Your task to perform on an android device: turn off picture-in-picture Image 0: 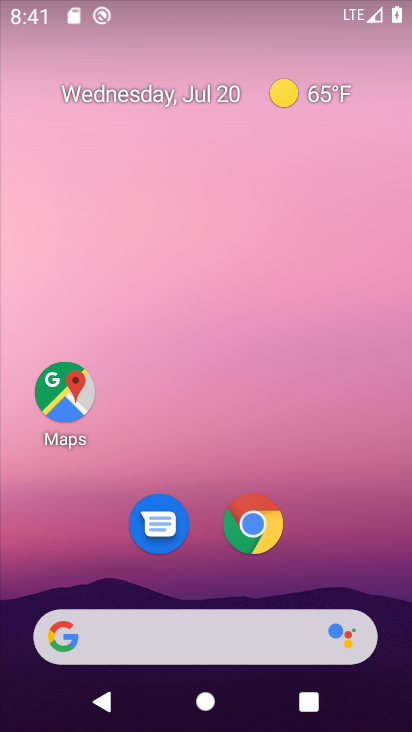
Step 0: click (238, 507)
Your task to perform on an android device: turn off picture-in-picture Image 1: 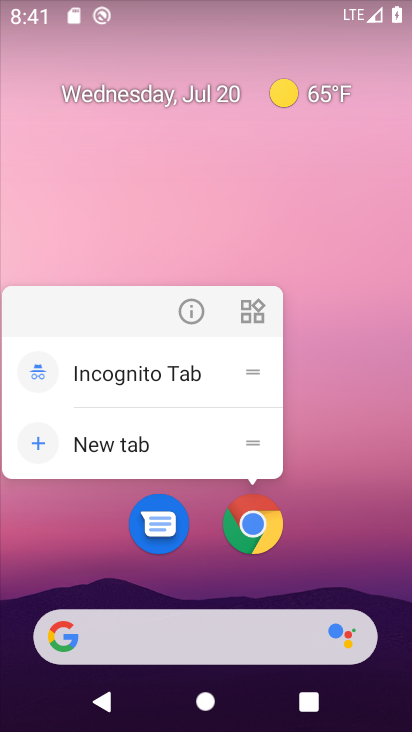
Step 1: click (196, 308)
Your task to perform on an android device: turn off picture-in-picture Image 2: 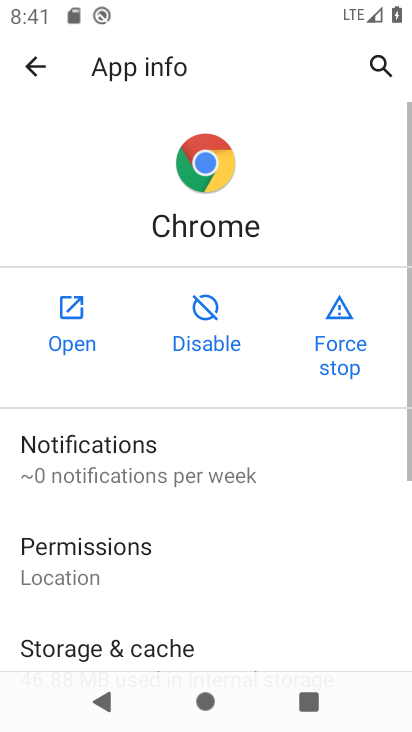
Step 2: drag from (215, 582) to (280, 34)
Your task to perform on an android device: turn off picture-in-picture Image 3: 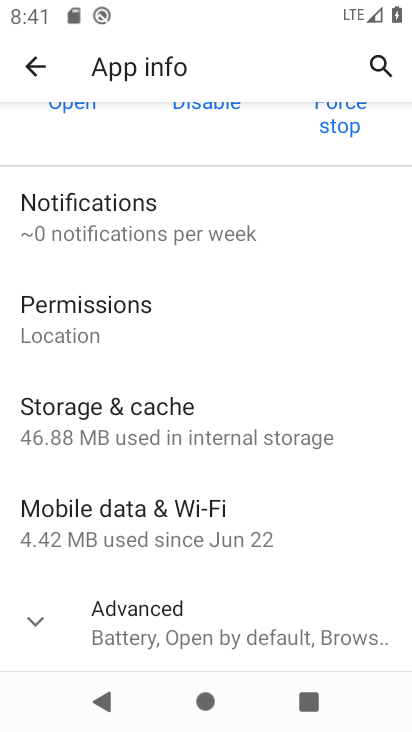
Step 3: click (33, 610)
Your task to perform on an android device: turn off picture-in-picture Image 4: 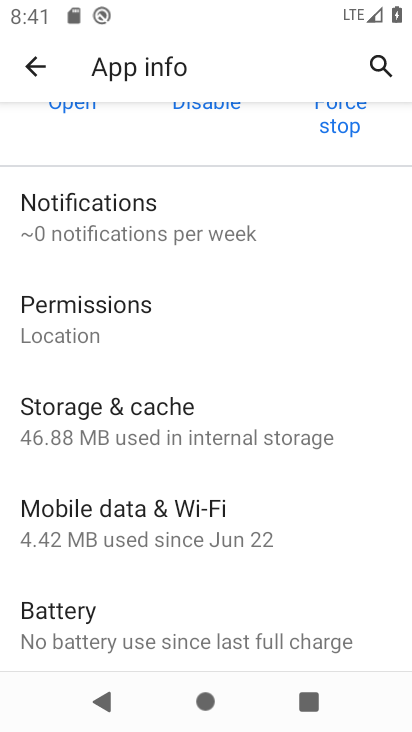
Step 4: drag from (267, 581) to (327, 61)
Your task to perform on an android device: turn off picture-in-picture Image 5: 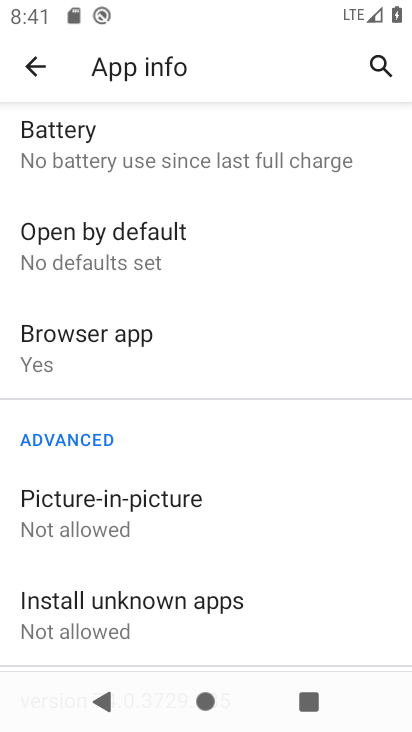
Step 5: click (158, 494)
Your task to perform on an android device: turn off picture-in-picture Image 6: 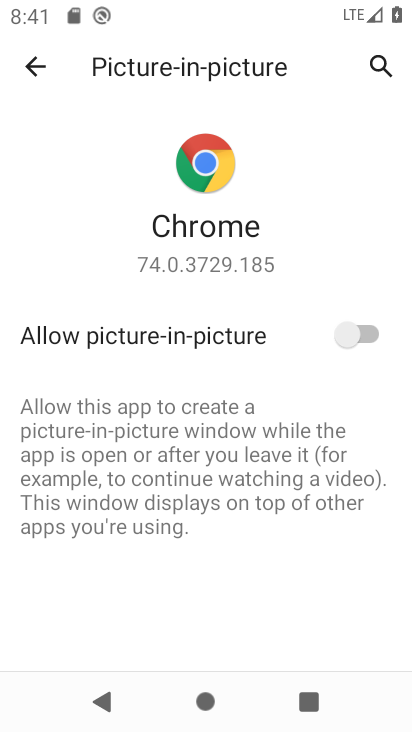
Step 6: task complete